Your task to perform on an android device: set the stopwatch Image 0: 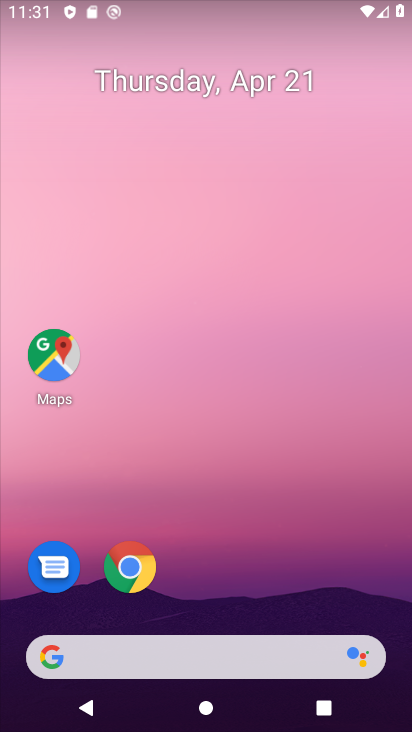
Step 0: drag from (172, 477) to (200, 205)
Your task to perform on an android device: set the stopwatch Image 1: 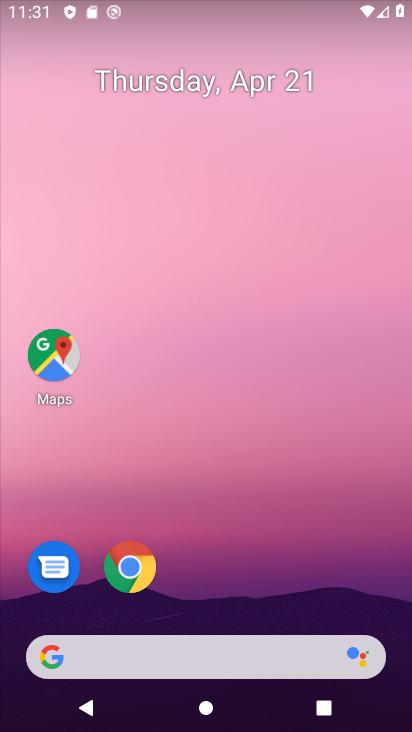
Step 1: drag from (205, 609) to (260, 149)
Your task to perform on an android device: set the stopwatch Image 2: 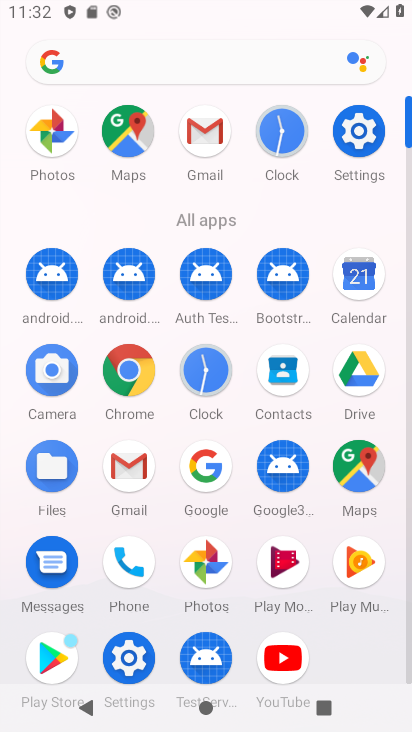
Step 2: click (198, 368)
Your task to perform on an android device: set the stopwatch Image 3: 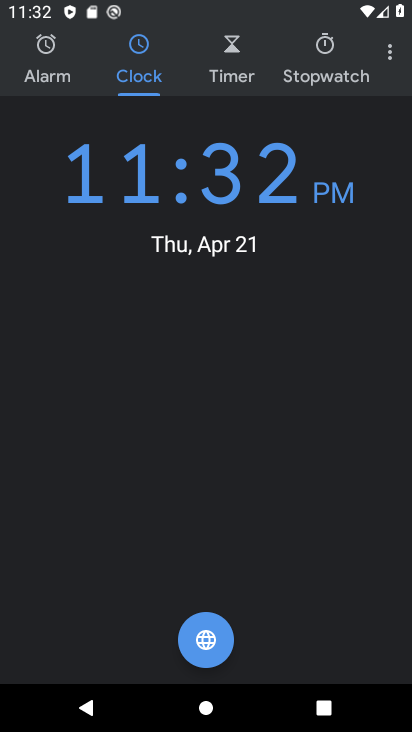
Step 3: click (299, 78)
Your task to perform on an android device: set the stopwatch Image 4: 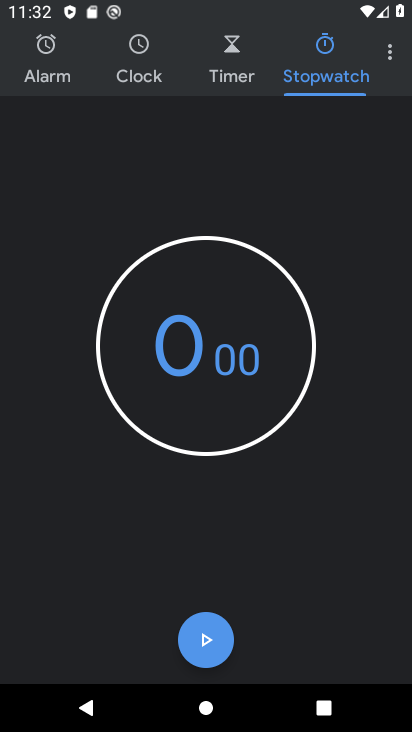
Step 4: task complete